Your task to perform on an android device: make emails show in primary in the gmail app Image 0: 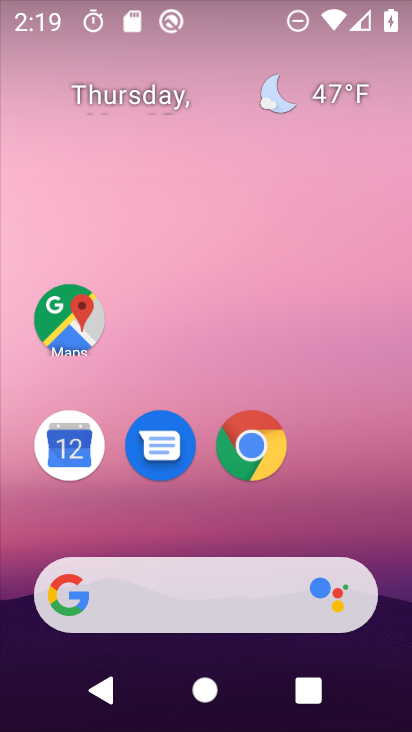
Step 0: drag from (204, 536) to (216, 231)
Your task to perform on an android device: make emails show in primary in the gmail app Image 1: 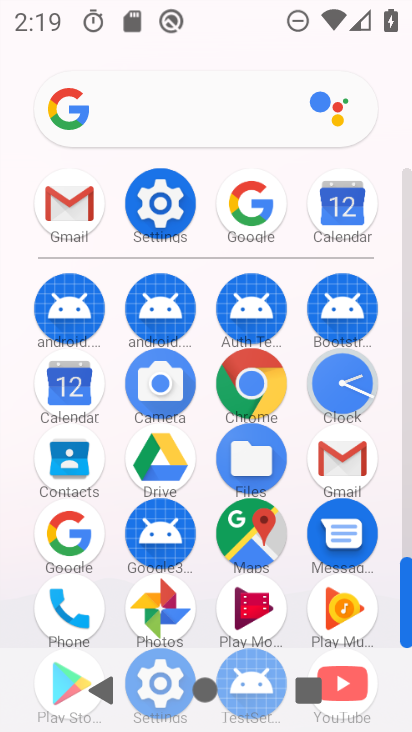
Step 1: click (89, 202)
Your task to perform on an android device: make emails show in primary in the gmail app Image 2: 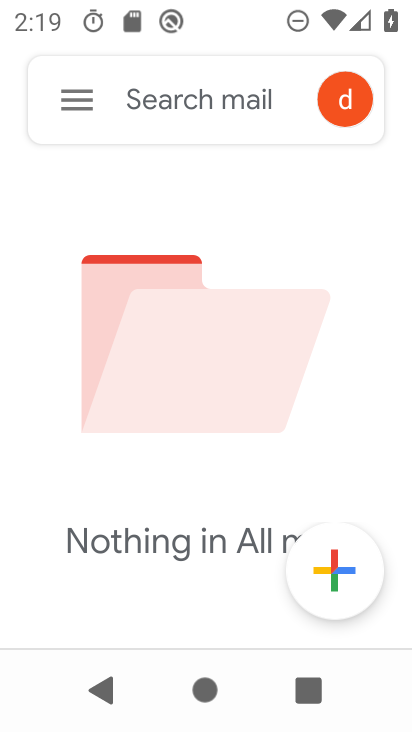
Step 2: click (63, 111)
Your task to perform on an android device: make emails show in primary in the gmail app Image 3: 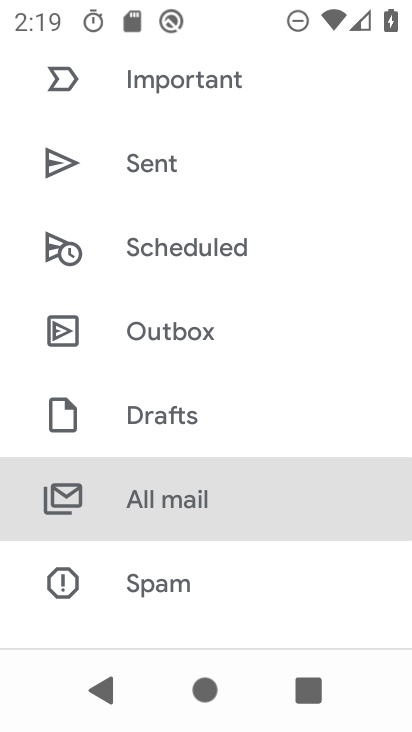
Step 3: drag from (206, 555) to (278, 229)
Your task to perform on an android device: make emails show in primary in the gmail app Image 4: 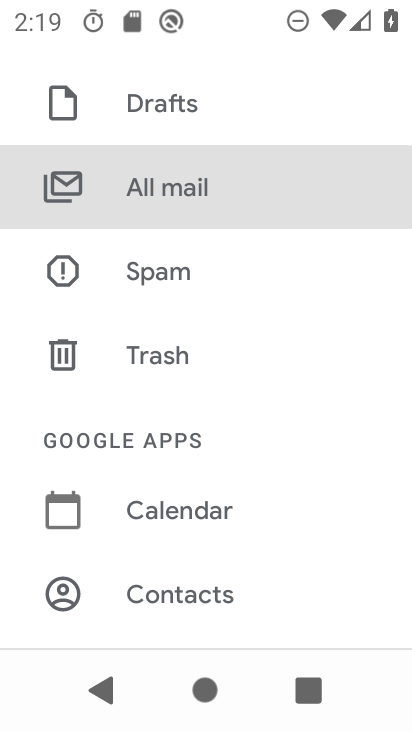
Step 4: drag from (222, 547) to (286, 225)
Your task to perform on an android device: make emails show in primary in the gmail app Image 5: 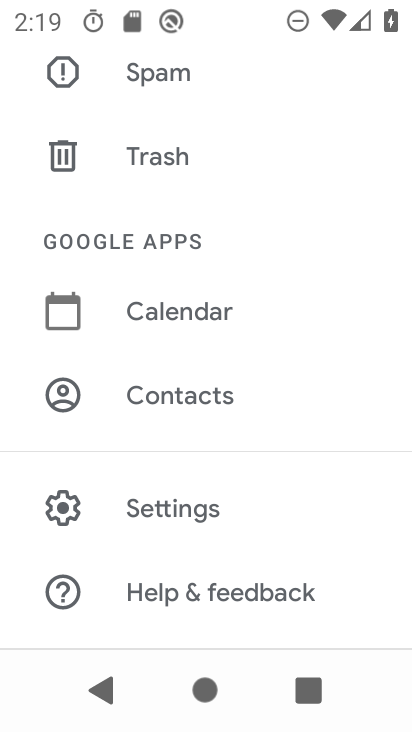
Step 5: click (194, 494)
Your task to perform on an android device: make emails show in primary in the gmail app Image 6: 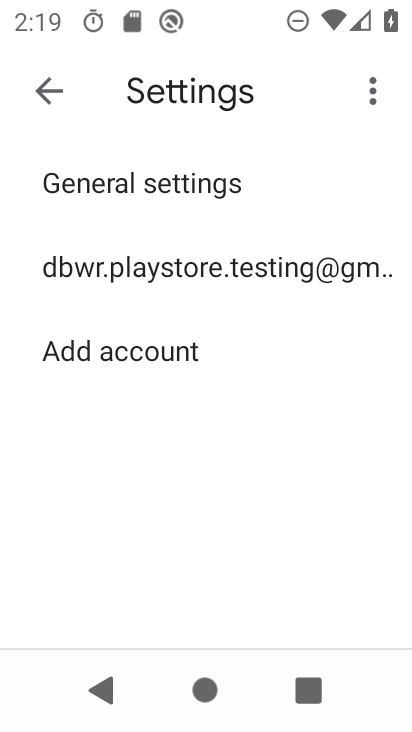
Step 6: click (132, 262)
Your task to perform on an android device: make emails show in primary in the gmail app Image 7: 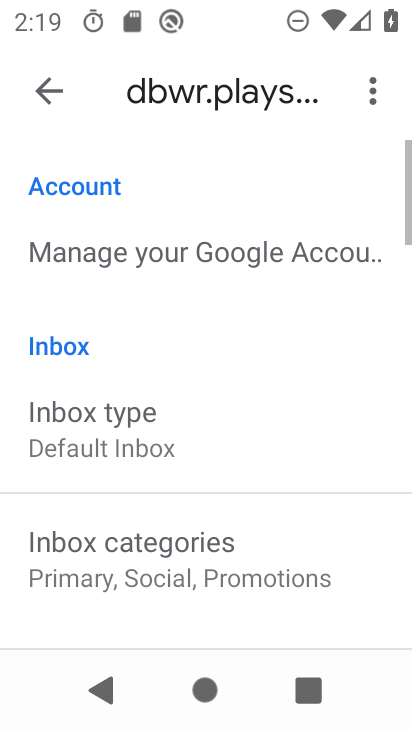
Step 7: drag from (205, 520) to (230, 322)
Your task to perform on an android device: make emails show in primary in the gmail app Image 8: 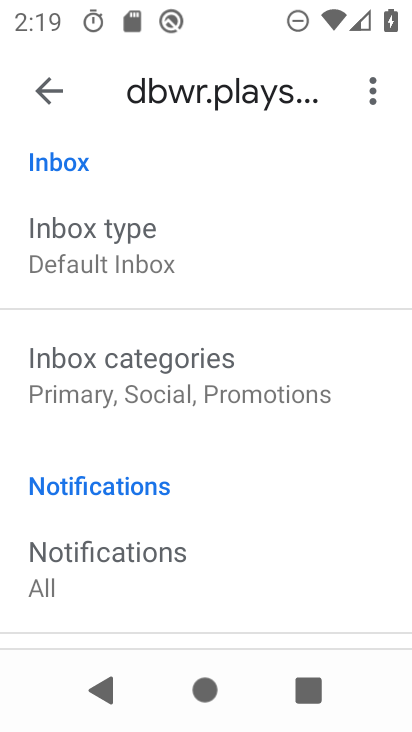
Step 8: drag from (243, 355) to (243, 482)
Your task to perform on an android device: make emails show in primary in the gmail app Image 9: 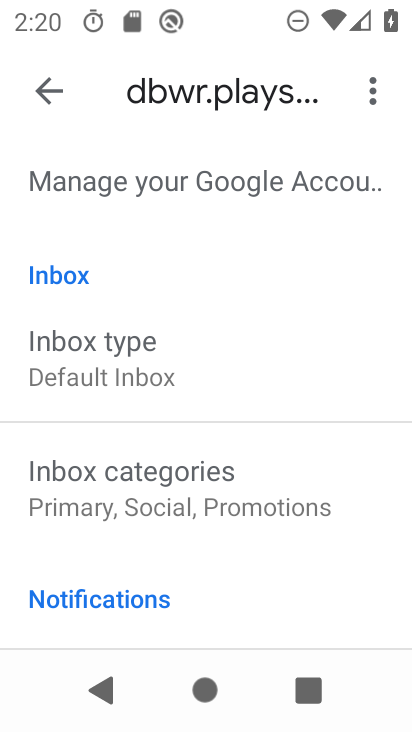
Step 9: click (228, 333)
Your task to perform on an android device: make emails show in primary in the gmail app Image 10: 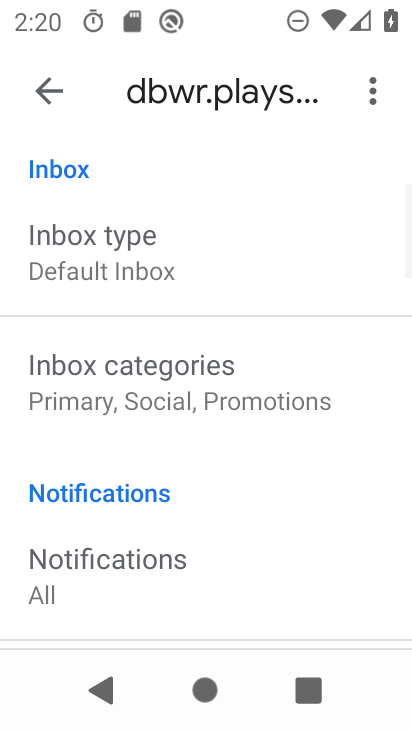
Step 10: click (59, 242)
Your task to perform on an android device: make emails show in primary in the gmail app Image 11: 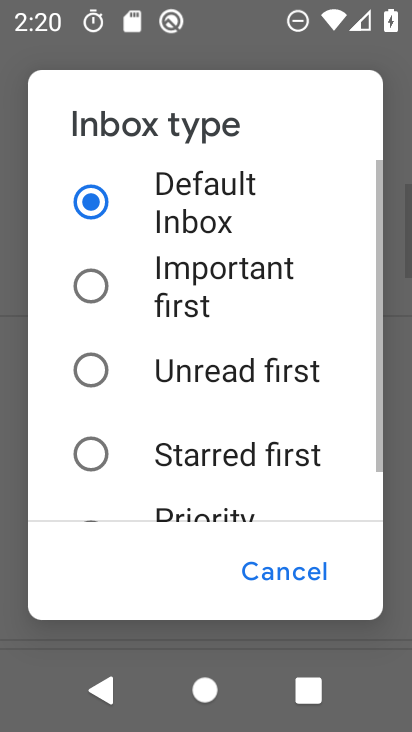
Step 11: click (283, 577)
Your task to perform on an android device: make emails show in primary in the gmail app Image 12: 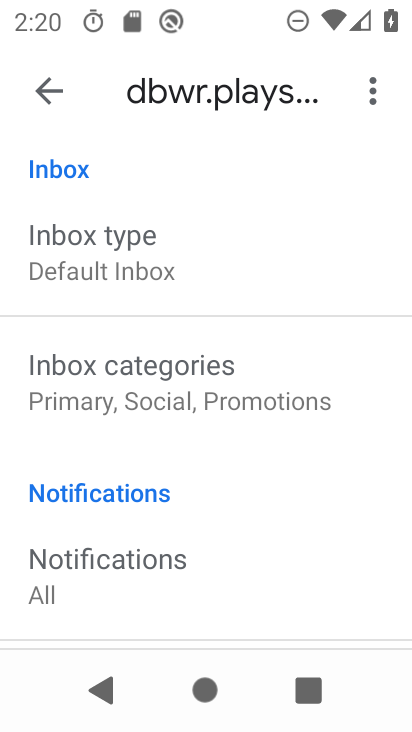
Step 12: click (136, 401)
Your task to perform on an android device: make emails show in primary in the gmail app Image 13: 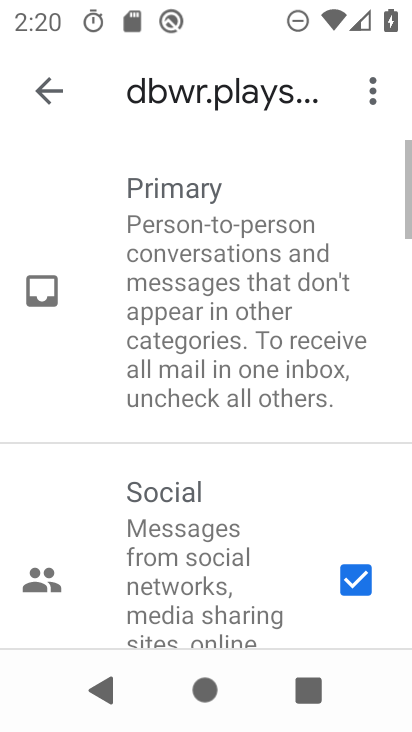
Step 13: click (159, 204)
Your task to perform on an android device: make emails show in primary in the gmail app Image 14: 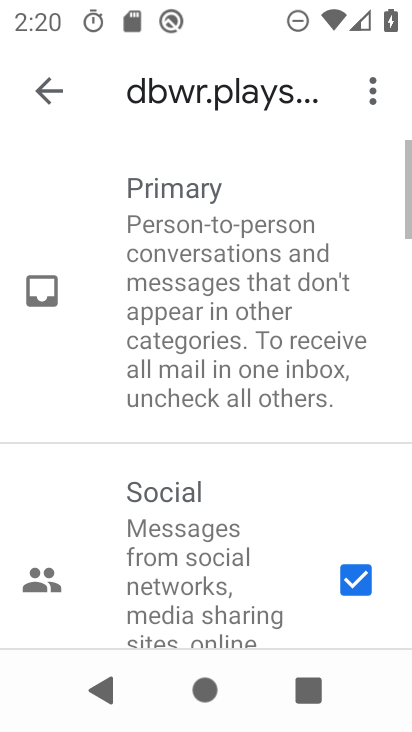
Step 14: task complete